Your task to perform on an android device: Open Google Chrome Image 0: 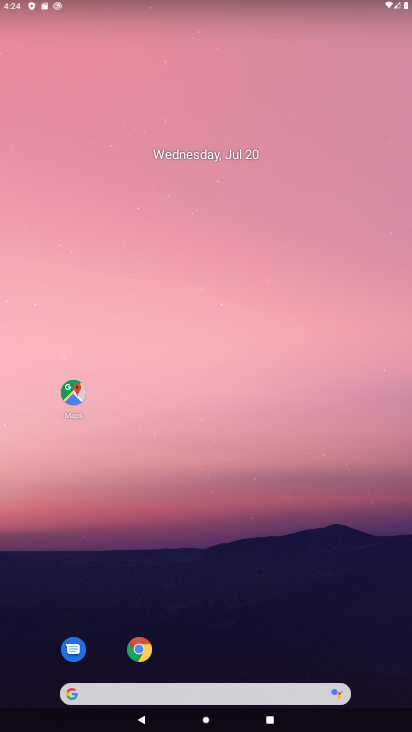
Step 0: drag from (226, 686) to (283, 87)
Your task to perform on an android device: Open Google Chrome Image 1: 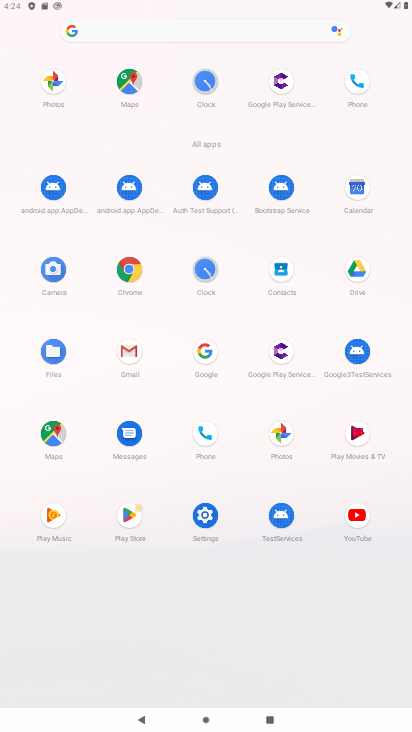
Step 1: click (123, 272)
Your task to perform on an android device: Open Google Chrome Image 2: 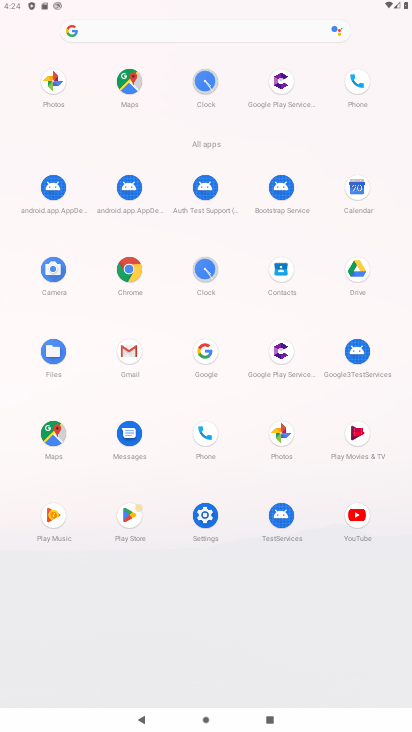
Step 2: click (122, 276)
Your task to perform on an android device: Open Google Chrome Image 3: 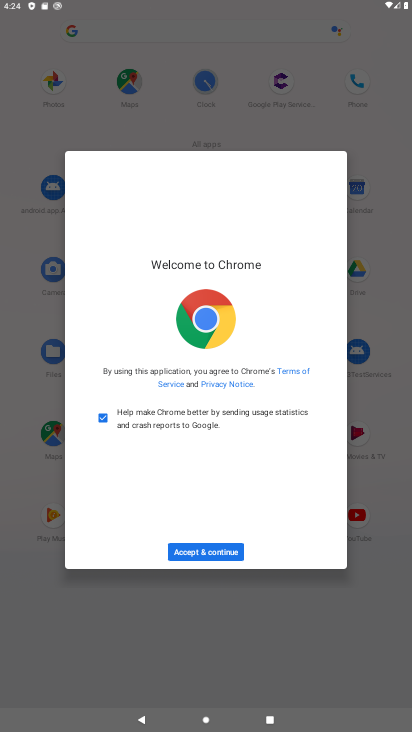
Step 3: click (202, 546)
Your task to perform on an android device: Open Google Chrome Image 4: 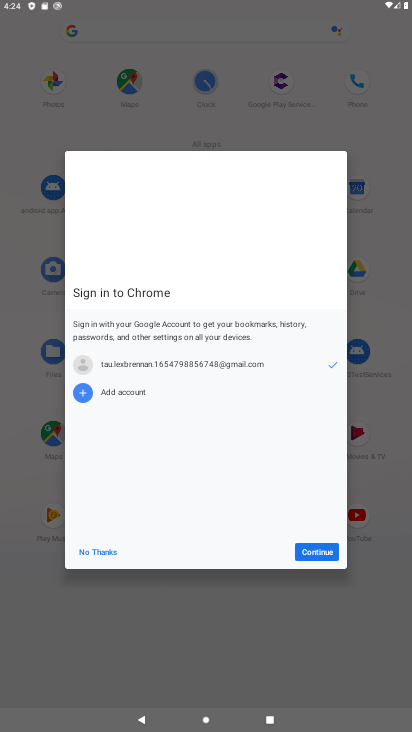
Step 4: click (319, 549)
Your task to perform on an android device: Open Google Chrome Image 5: 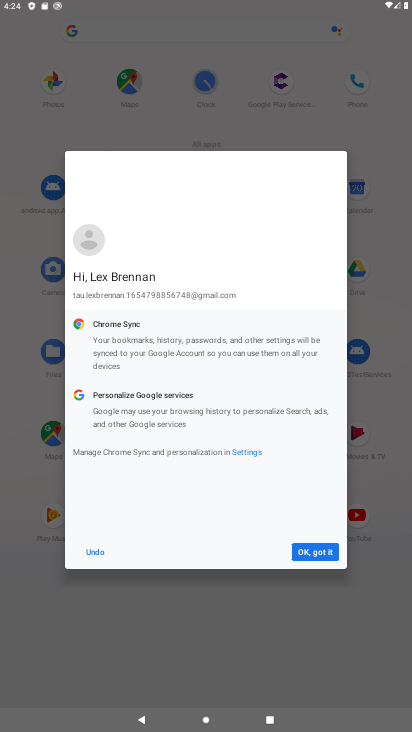
Step 5: click (319, 549)
Your task to perform on an android device: Open Google Chrome Image 6: 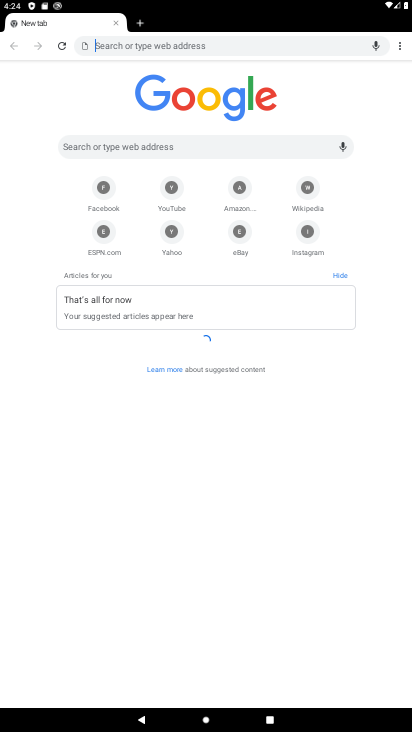
Step 6: task complete